Your task to perform on an android device: toggle javascript in the chrome app Image 0: 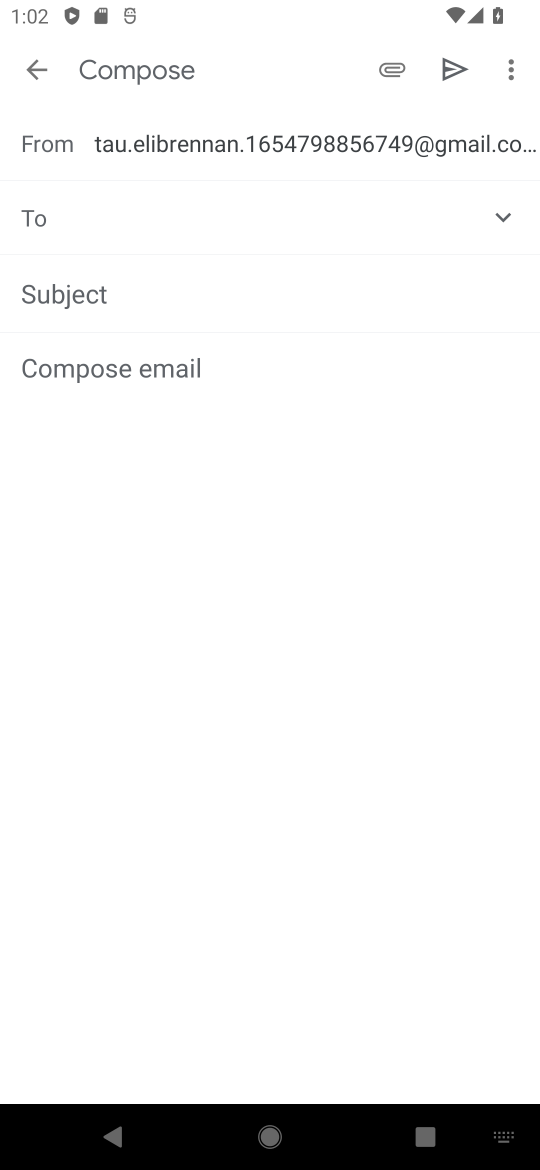
Step 0: press home button
Your task to perform on an android device: toggle javascript in the chrome app Image 1: 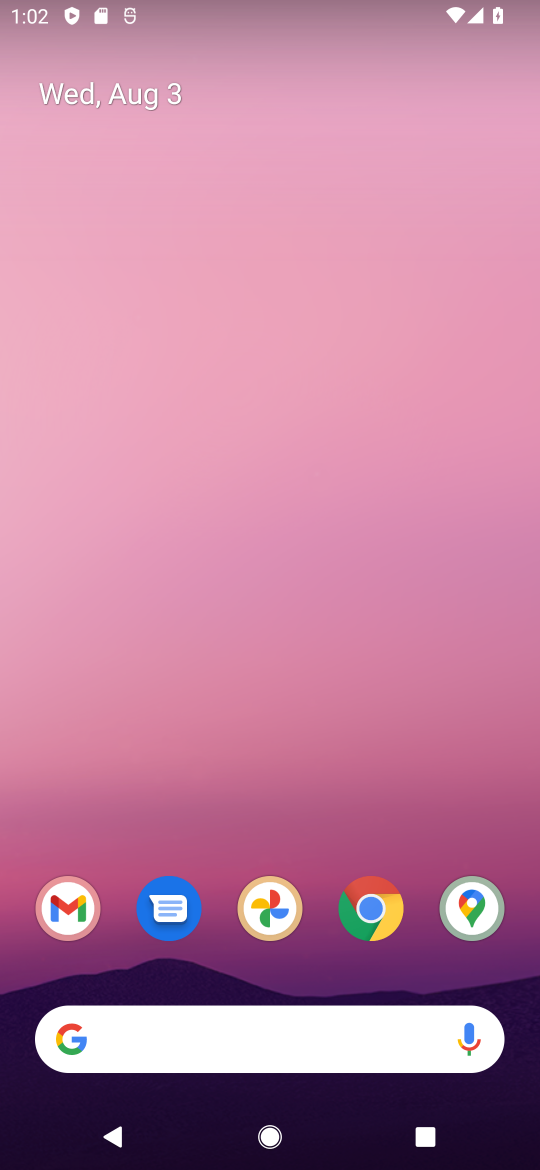
Step 1: click (375, 903)
Your task to perform on an android device: toggle javascript in the chrome app Image 2: 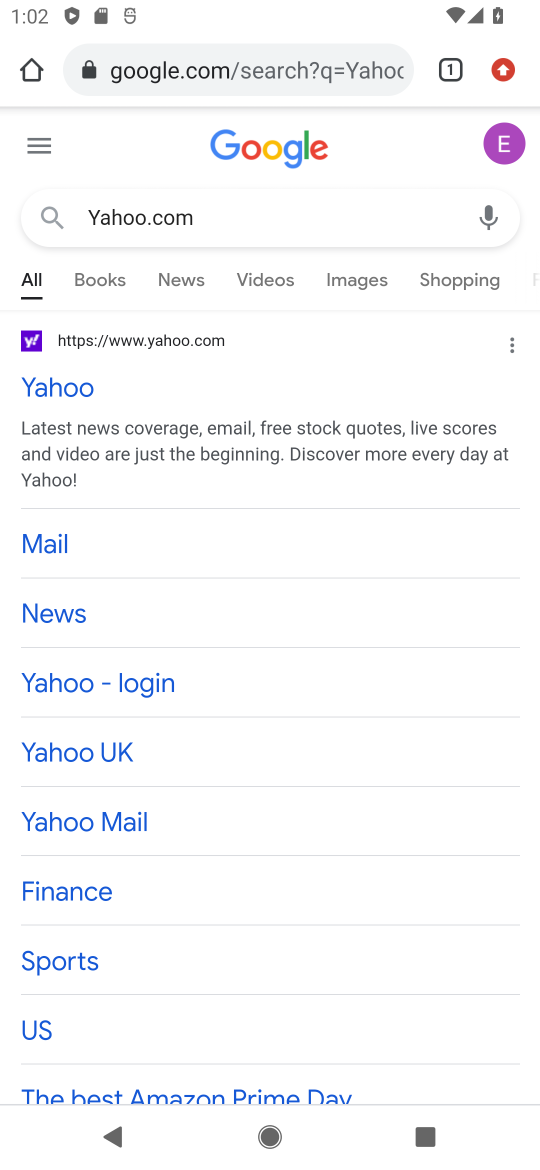
Step 2: click (501, 74)
Your task to perform on an android device: toggle javascript in the chrome app Image 3: 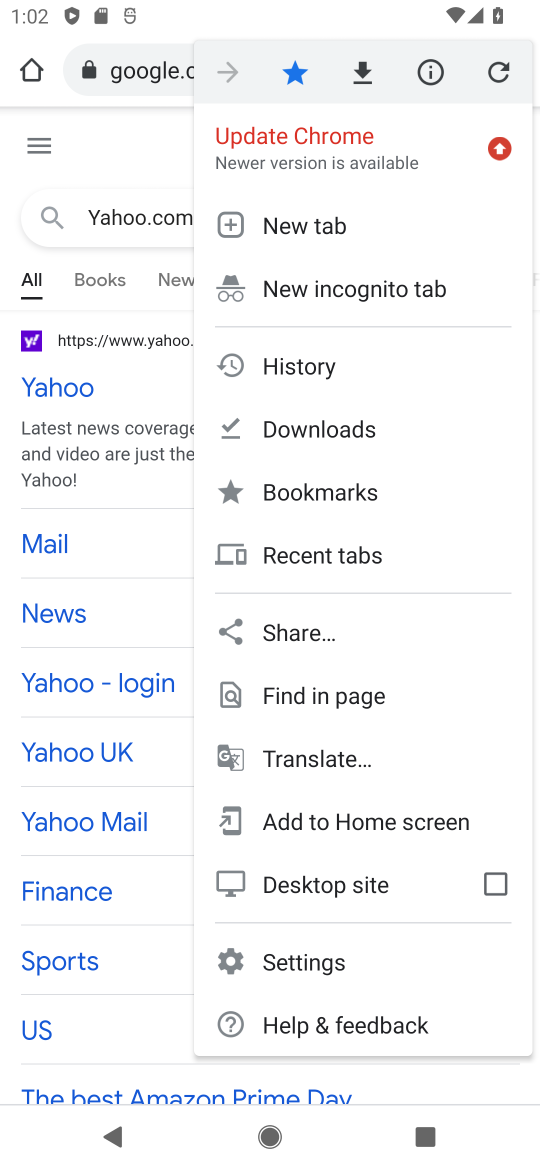
Step 3: click (285, 956)
Your task to perform on an android device: toggle javascript in the chrome app Image 4: 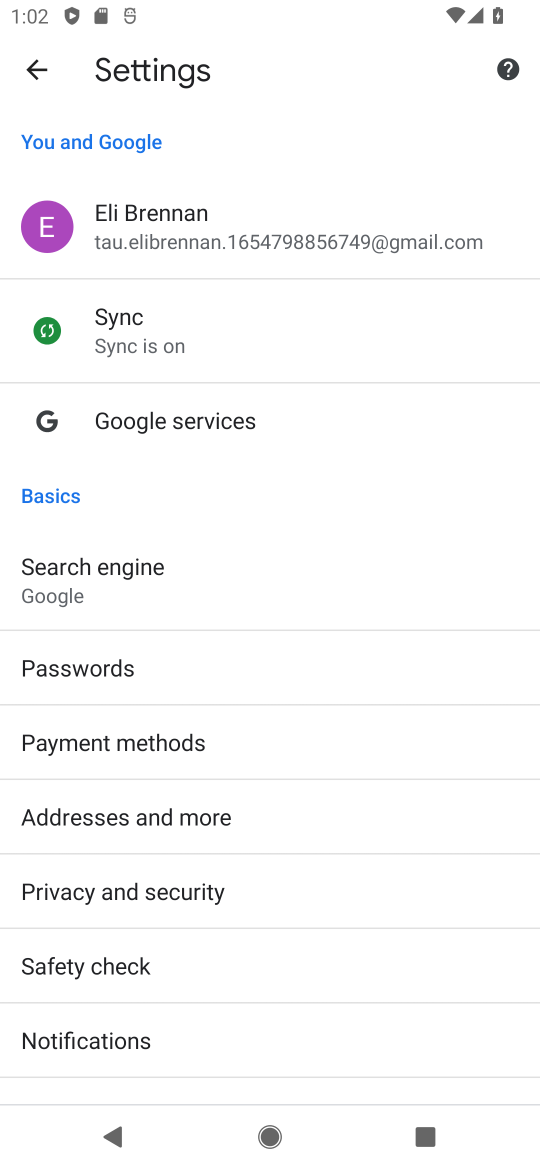
Step 4: drag from (118, 994) to (283, 210)
Your task to perform on an android device: toggle javascript in the chrome app Image 5: 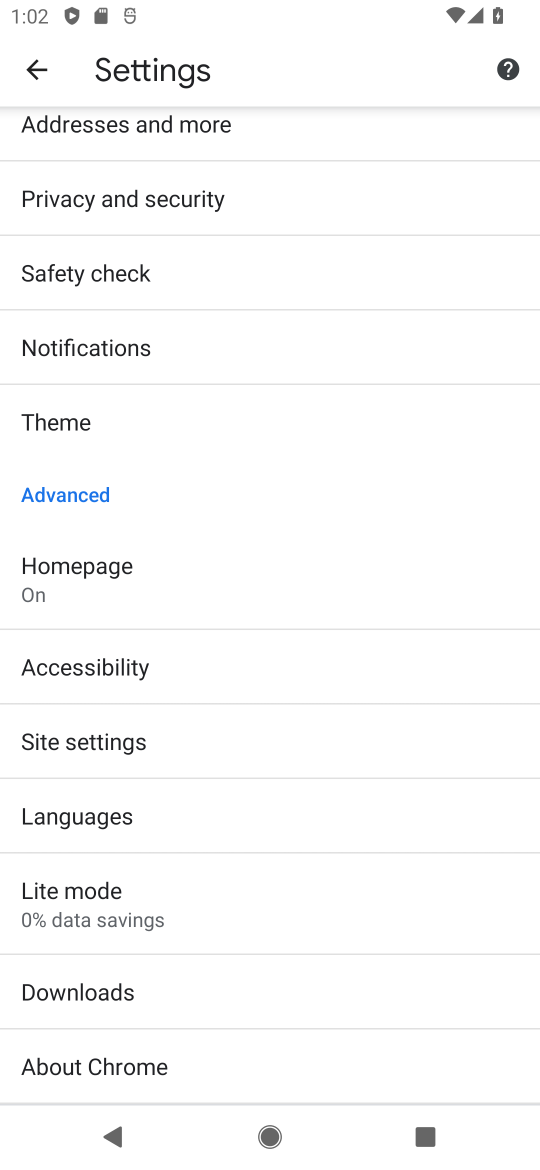
Step 5: click (81, 725)
Your task to perform on an android device: toggle javascript in the chrome app Image 6: 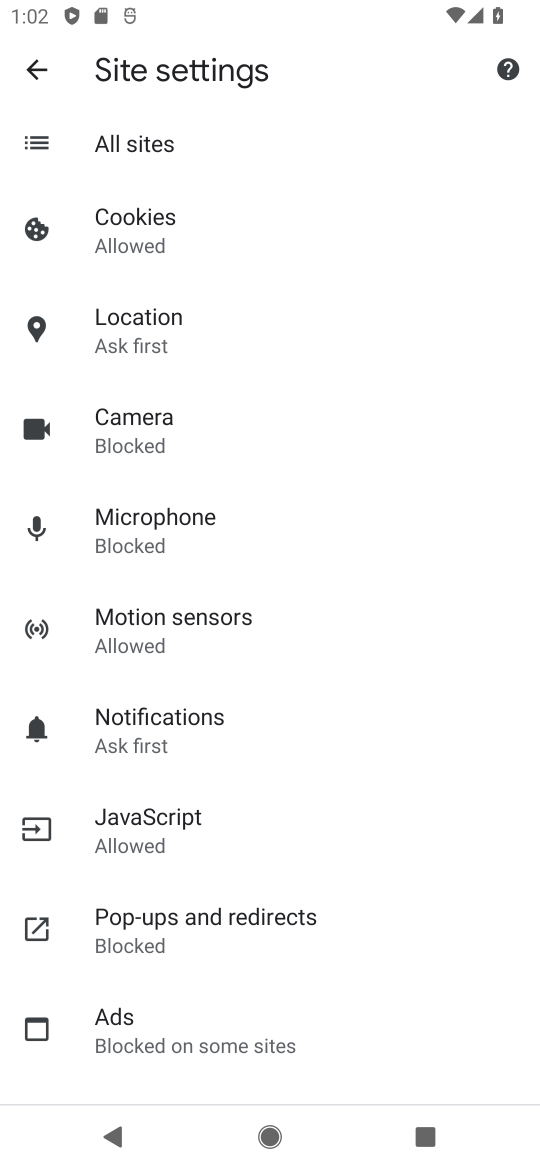
Step 6: click (155, 830)
Your task to perform on an android device: toggle javascript in the chrome app Image 7: 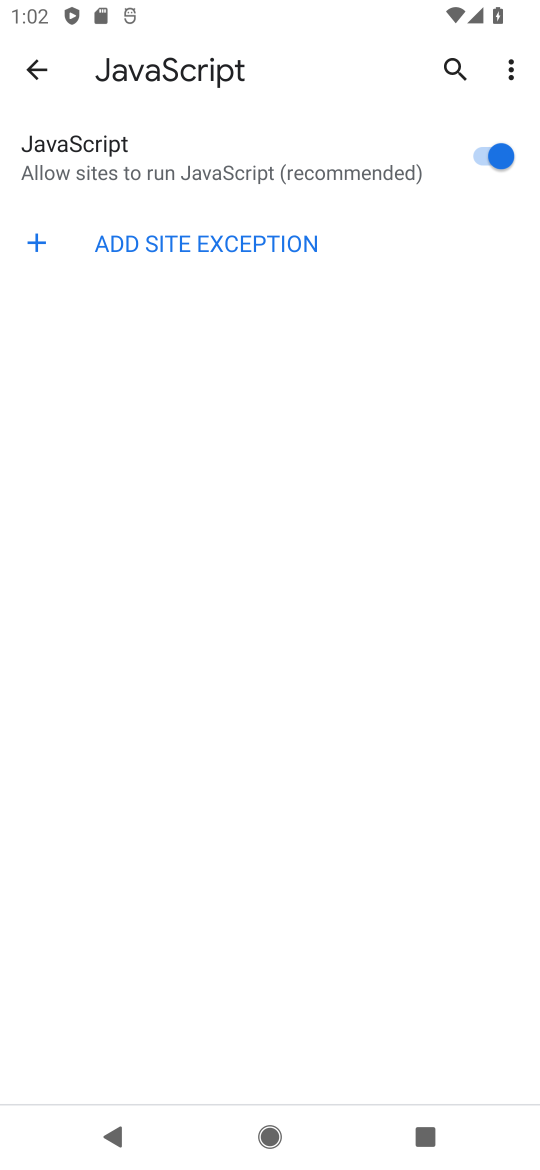
Step 7: click (482, 148)
Your task to perform on an android device: toggle javascript in the chrome app Image 8: 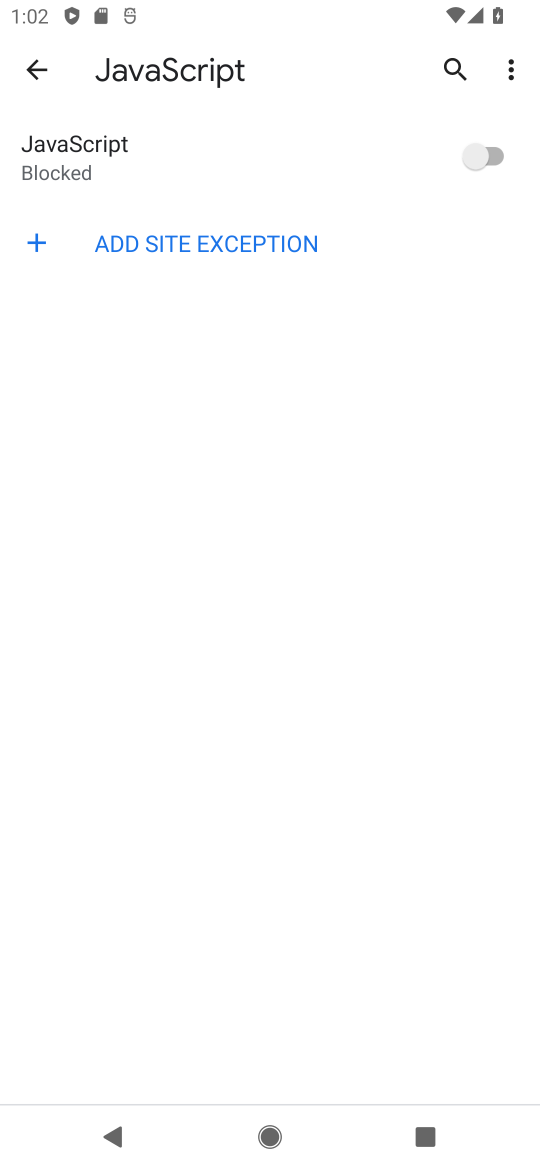
Step 8: task complete